Your task to perform on an android device: turn on bluetooth scan Image 0: 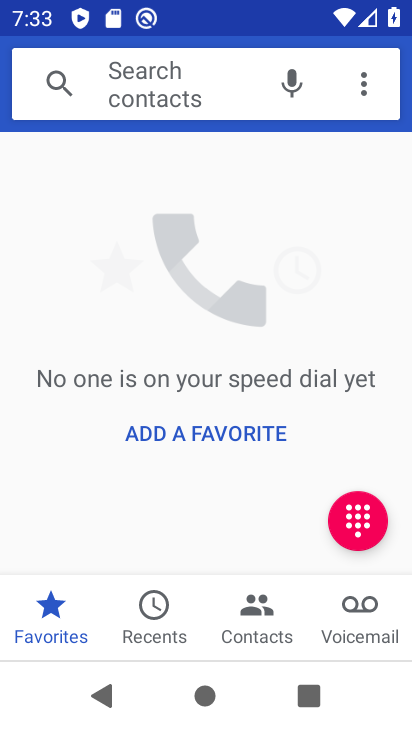
Step 0: press home button
Your task to perform on an android device: turn on bluetooth scan Image 1: 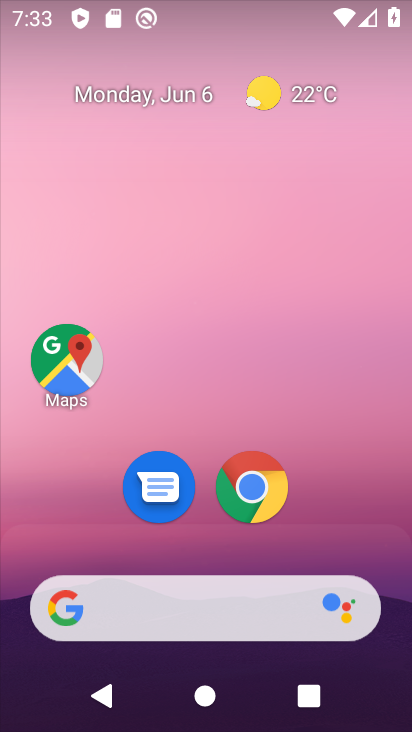
Step 1: drag from (376, 551) to (371, 131)
Your task to perform on an android device: turn on bluetooth scan Image 2: 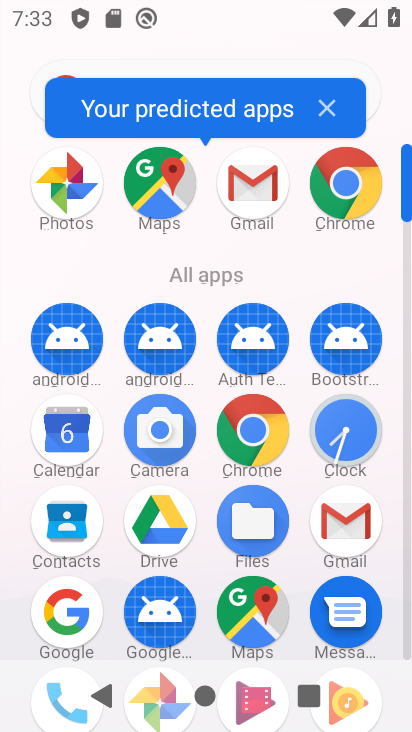
Step 2: drag from (208, 600) to (217, 197)
Your task to perform on an android device: turn on bluetooth scan Image 3: 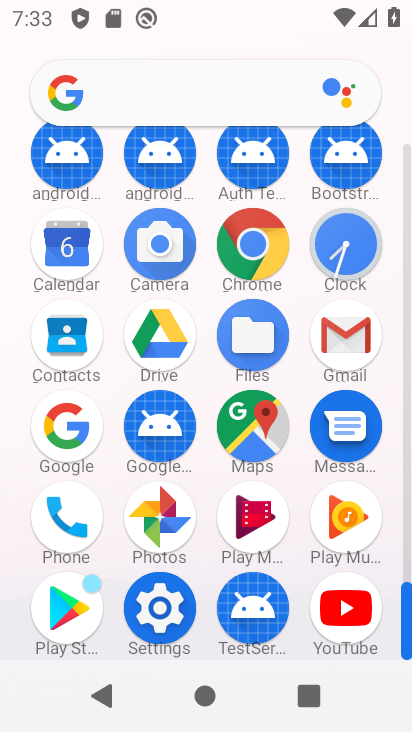
Step 3: click (153, 622)
Your task to perform on an android device: turn on bluetooth scan Image 4: 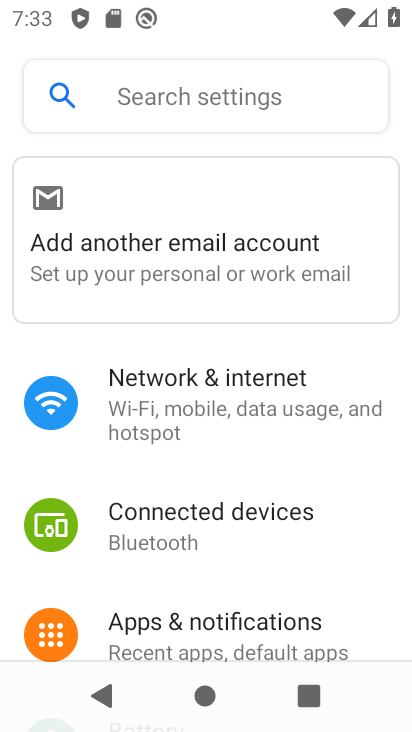
Step 4: drag from (204, 583) to (264, 251)
Your task to perform on an android device: turn on bluetooth scan Image 5: 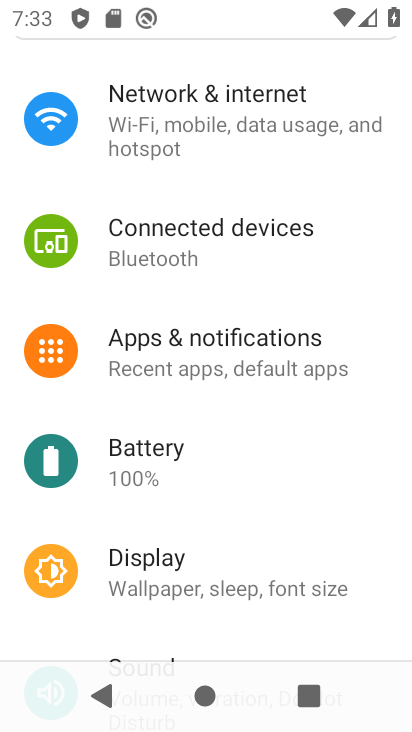
Step 5: drag from (241, 568) to (277, 310)
Your task to perform on an android device: turn on bluetooth scan Image 6: 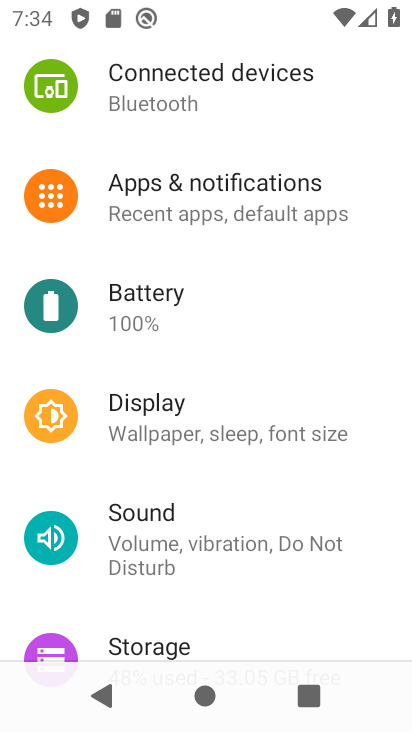
Step 6: drag from (228, 571) to (277, 308)
Your task to perform on an android device: turn on bluetooth scan Image 7: 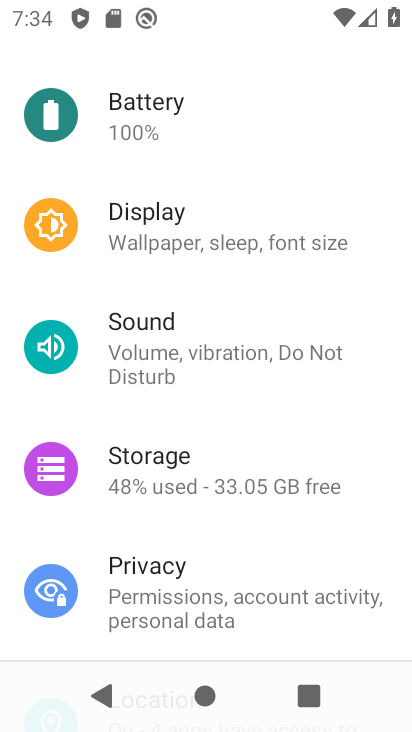
Step 7: drag from (207, 524) to (268, 227)
Your task to perform on an android device: turn on bluetooth scan Image 8: 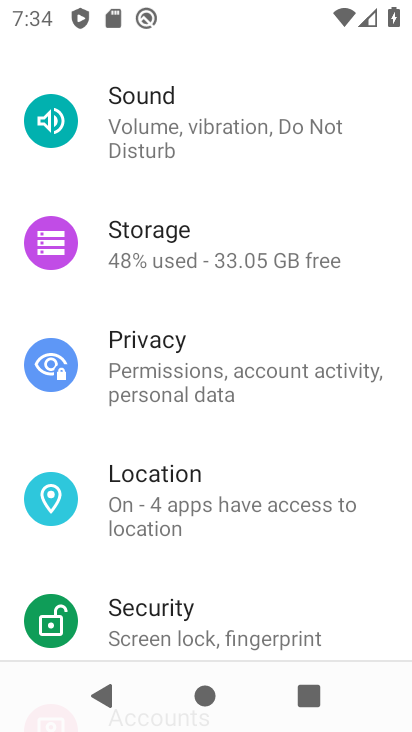
Step 8: click (189, 501)
Your task to perform on an android device: turn on bluetooth scan Image 9: 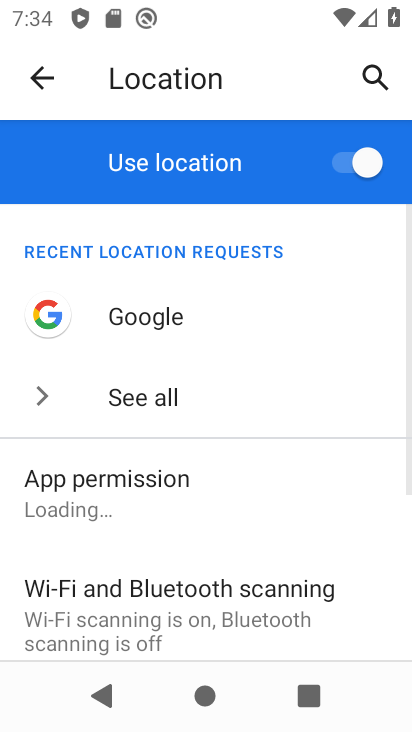
Step 9: click (172, 598)
Your task to perform on an android device: turn on bluetooth scan Image 10: 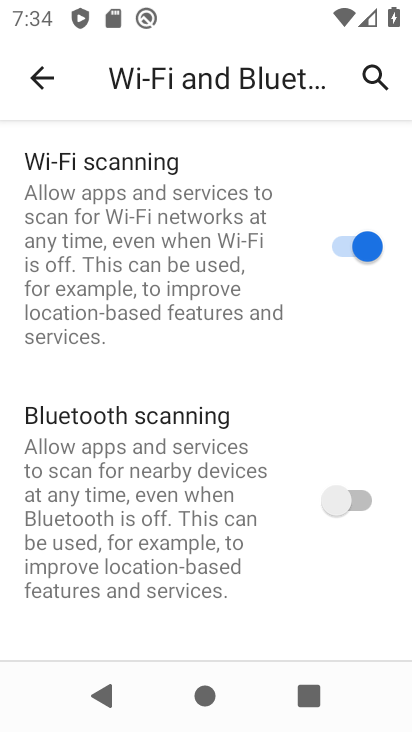
Step 10: click (375, 495)
Your task to perform on an android device: turn on bluetooth scan Image 11: 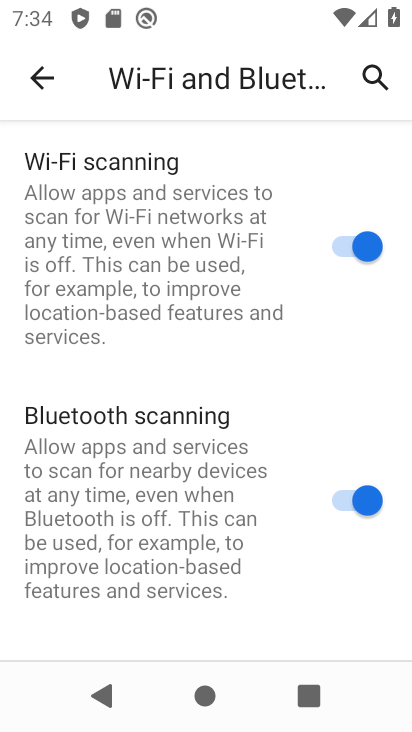
Step 11: task complete